Your task to perform on an android device: Go to Android settings Image 0: 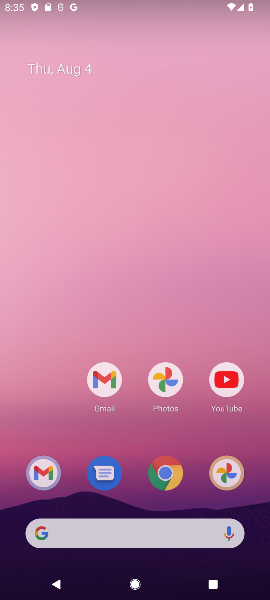
Step 0: press home button
Your task to perform on an android device: Go to Android settings Image 1: 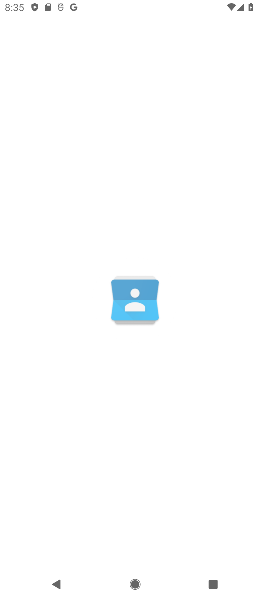
Step 1: press home button
Your task to perform on an android device: Go to Android settings Image 2: 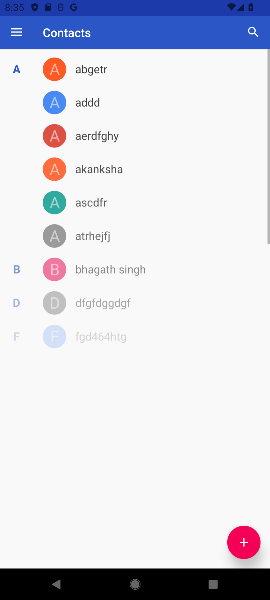
Step 2: press home button
Your task to perform on an android device: Go to Android settings Image 3: 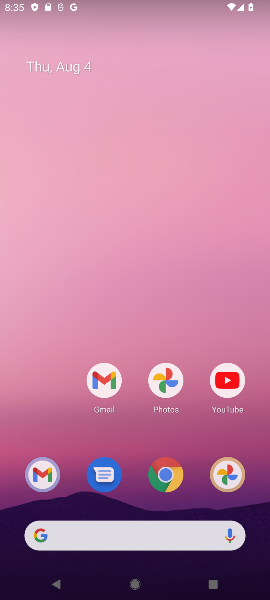
Step 3: press home button
Your task to perform on an android device: Go to Android settings Image 4: 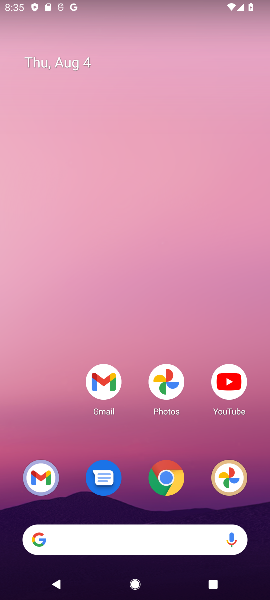
Step 4: drag from (51, 435) to (39, 94)
Your task to perform on an android device: Go to Android settings Image 5: 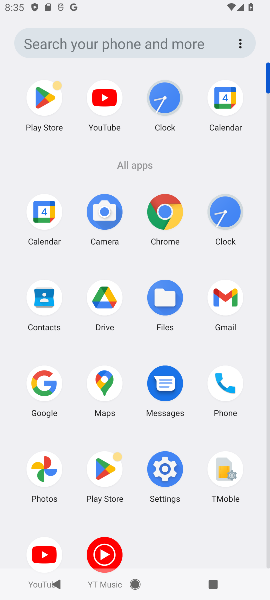
Step 5: click (168, 472)
Your task to perform on an android device: Go to Android settings Image 6: 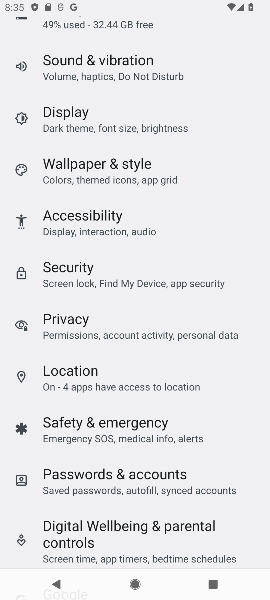
Step 6: drag from (174, 499) to (156, 29)
Your task to perform on an android device: Go to Android settings Image 7: 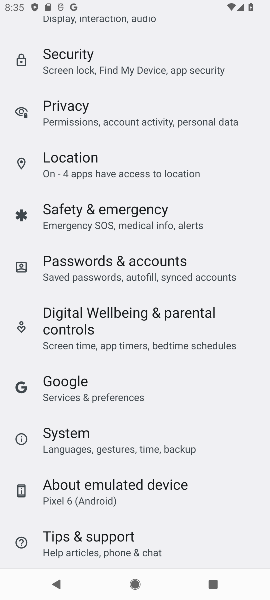
Step 7: click (149, 499)
Your task to perform on an android device: Go to Android settings Image 8: 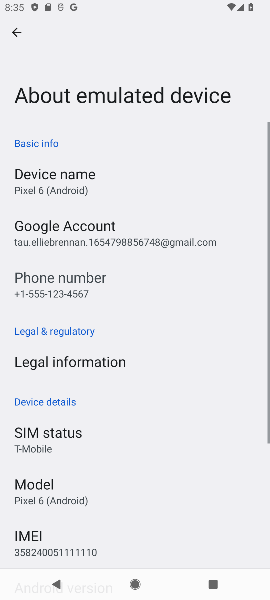
Step 8: drag from (149, 499) to (127, 130)
Your task to perform on an android device: Go to Android settings Image 9: 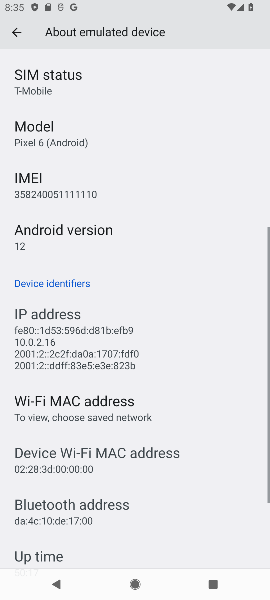
Step 9: click (80, 250)
Your task to perform on an android device: Go to Android settings Image 10: 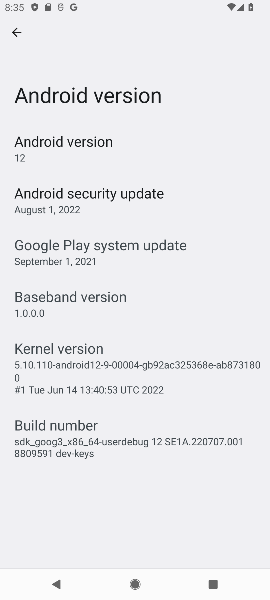
Step 10: task complete